Your task to perform on an android device: open chrome and create a bookmark for the current page Image 0: 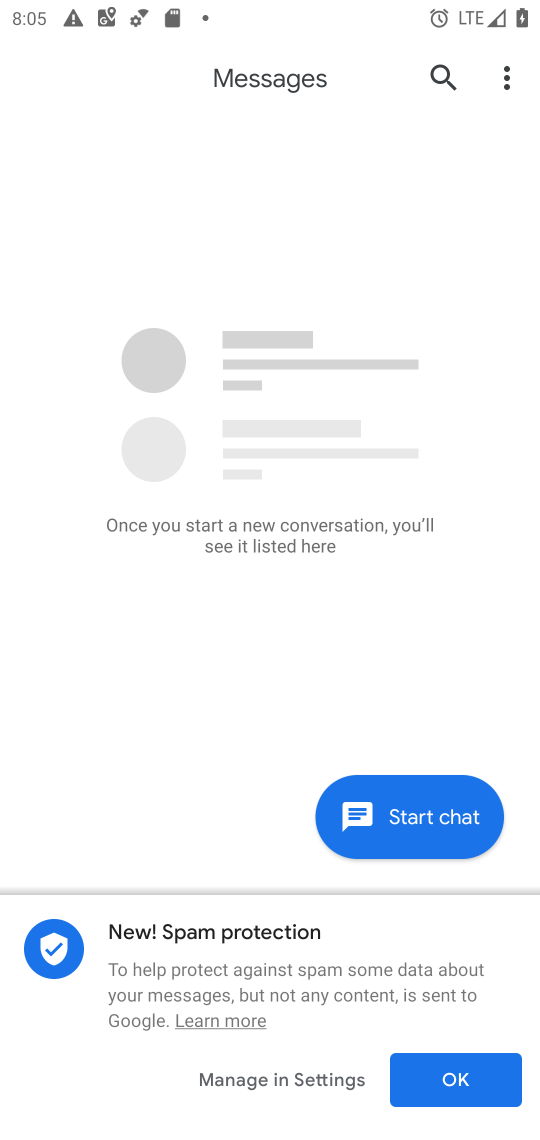
Step 0: press home button
Your task to perform on an android device: open chrome and create a bookmark for the current page Image 1: 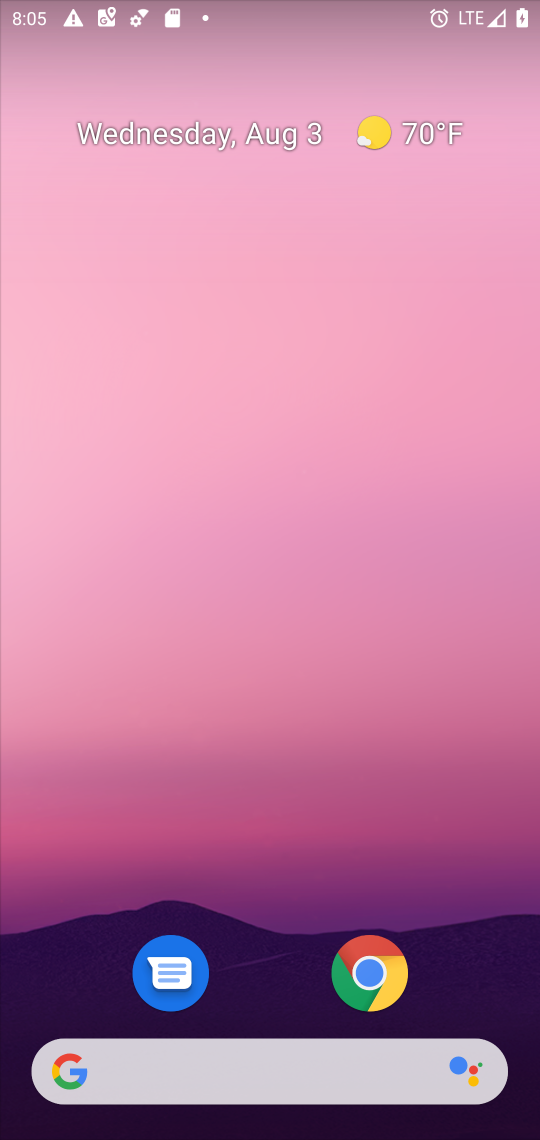
Step 1: drag from (282, 978) to (266, 8)
Your task to perform on an android device: open chrome and create a bookmark for the current page Image 2: 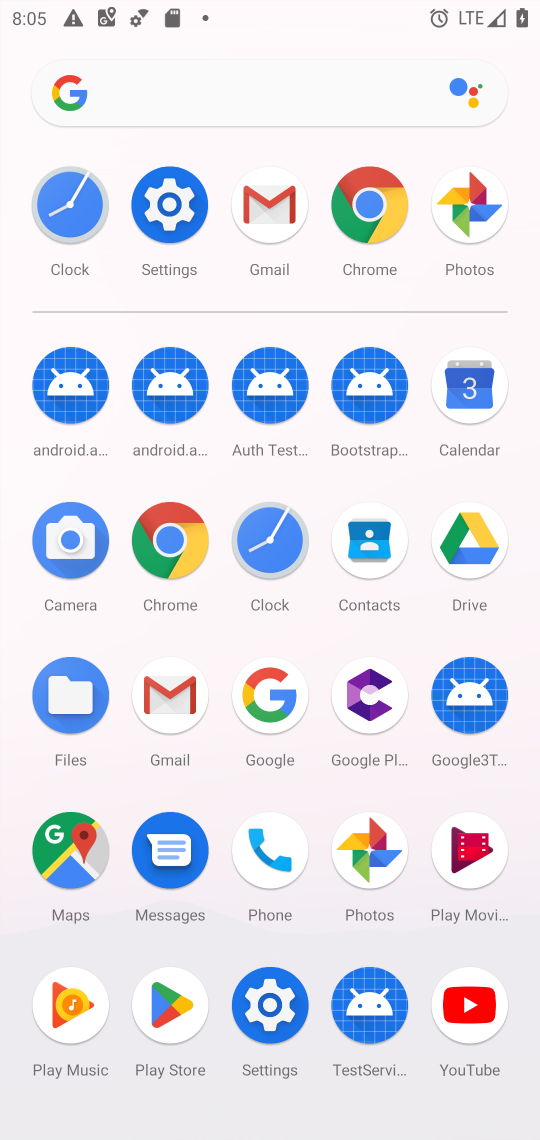
Step 2: click (371, 193)
Your task to perform on an android device: open chrome and create a bookmark for the current page Image 3: 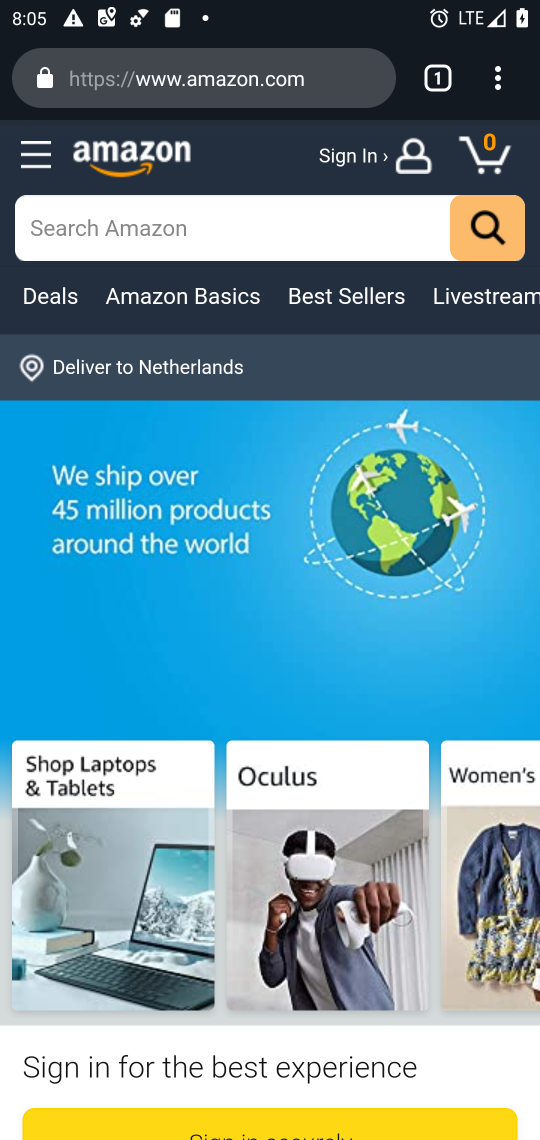
Step 3: click (500, 79)
Your task to perform on an android device: open chrome and create a bookmark for the current page Image 4: 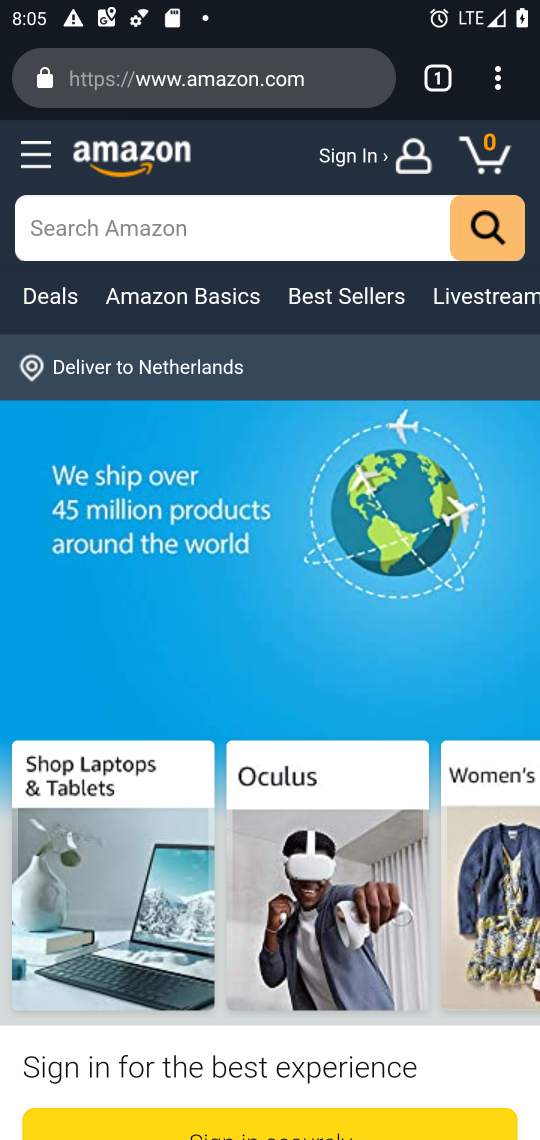
Step 4: click (500, 83)
Your task to perform on an android device: open chrome and create a bookmark for the current page Image 5: 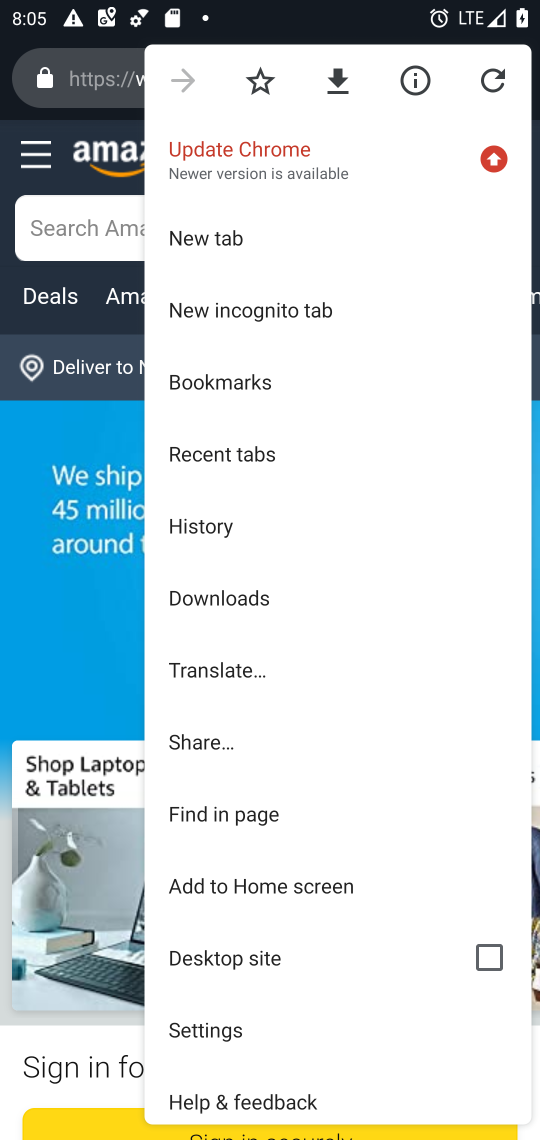
Step 5: click (258, 78)
Your task to perform on an android device: open chrome and create a bookmark for the current page Image 6: 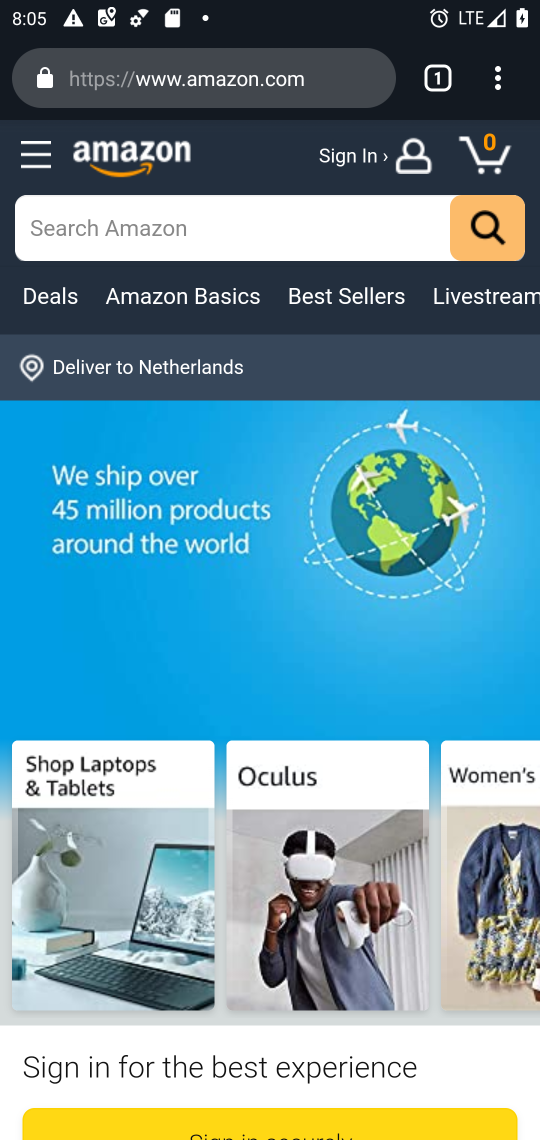
Step 6: task complete